Your task to perform on an android device: Empty the shopping cart on costco.com. Add razer huntsman to the cart on costco.com, then select checkout. Image 0: 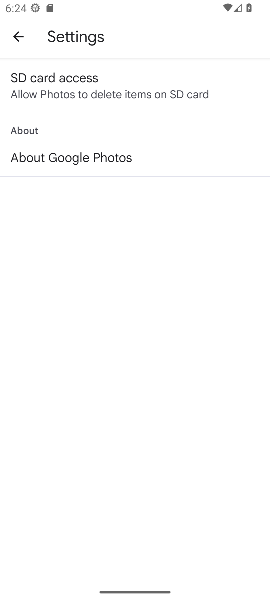
Step 0: press home button
Your task to perform on an android device: Empty the shopping cart on costco.com. Add razer huntsman to the cart on costco.com, then select checkout. Image 1: 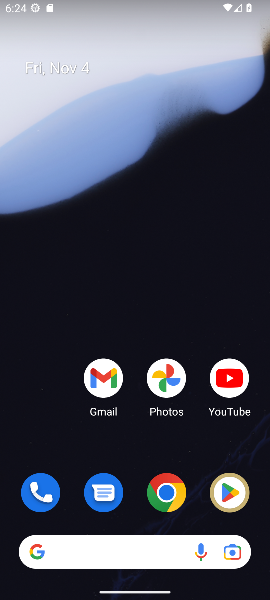
Step 1: drag from (187, 119) to (196, 85)
Your task to perform on an android device: Empty the shopping cart on costco.com. Add razer huntsman to the cart on costco.com, then select checkout. Image 2: 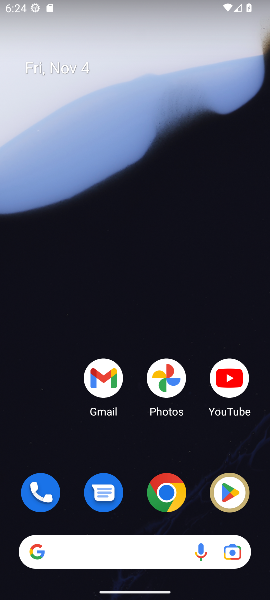
Step 2: drag from (135, 454) to (165, 72)
Your task to perform on an android device: Empty the shopping cart on costco.com. Add razer huntsman to the cart on costco.com, then select checkout. Image 3: 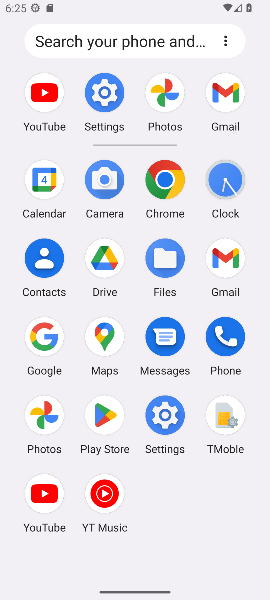
Step 3: click (168, 180)
Your task to perform on an android device: Empty the shopping cart on costco.com. Add razer huntsman to the cart on costco.com, then select checkout. Image 4: 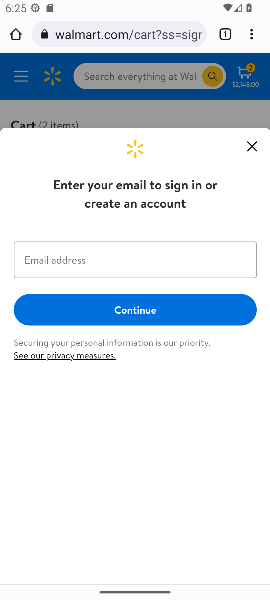
Step 4: click (117, 31)
Your task to perform on an android device: Empty the shopping cart on costco.com. Add razer huntsman to the cart on costco.com, then select checkout. Image 5: 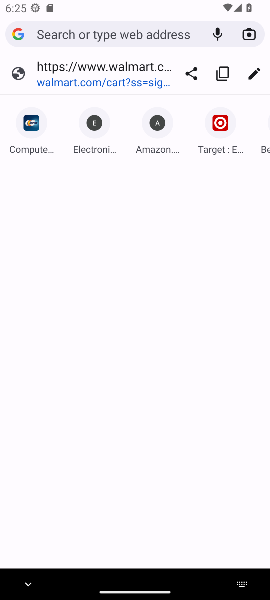
Step 5: type "costco.com"
Your task to perform on an android device: Empty the shopping cart on costco.com. Add razer huntsman to the cart on costco.com, then select checkout. Image 6: 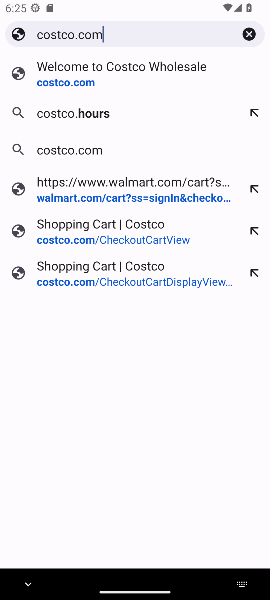
Step 6: press enter
Your task to perform on an android device: Empty the shopping cart on costco.com. Add razer huntsman to the cart on costco.com, then select checkout. Image 7: 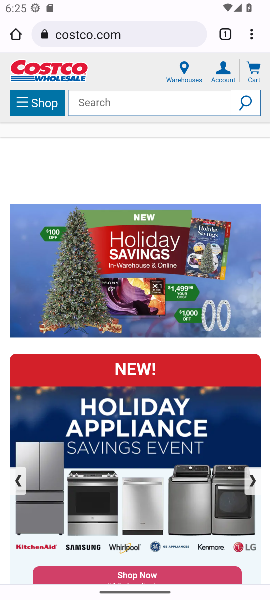
Step 7: click (249, 68)
Your task to perform on an android device: Empty the shopping cart on costco.com. Add razer huntsman to the cart on costco.com, then select checkout. Image 8: 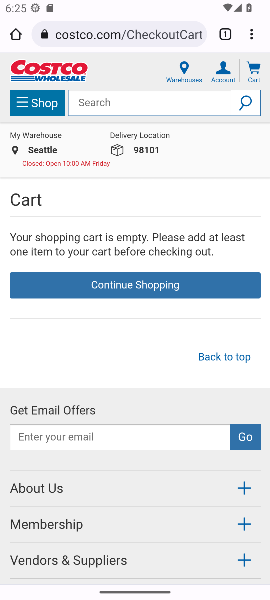
Step 8: click (154, 105)
Your task to perform on an android device: Empty the shopping cart on costco.com. Add razer huntsman to the cart on costco.com, then select checkout. Image 9: 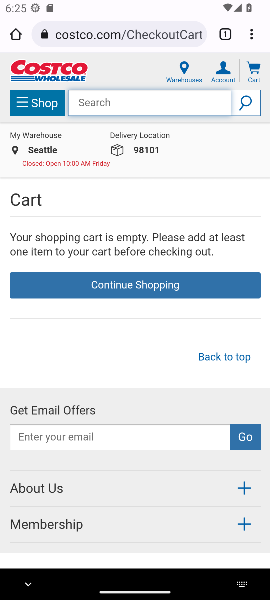
Step 9: type "razer huntsman"
Your task to perform on an android device: Empty the shopping cart on costco.com. Add razer huntsman to the cart on costco.com, then select checkout. Image 10: 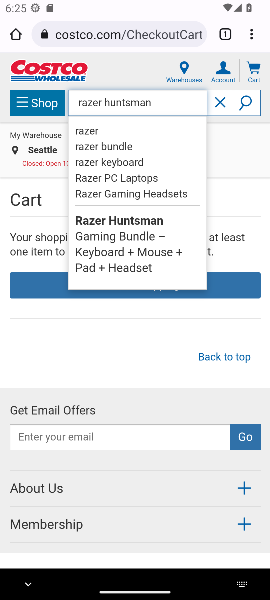
Step 10: press enter
Your task to perform on an android device: Empty the shopping cart on costco.com. Add razer huntsman to the cart on costco.com, then select checkout. Image 11: 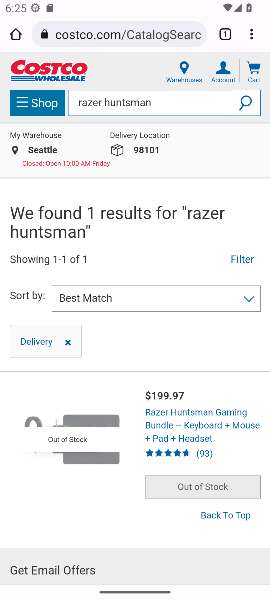
Step 11: drag from (121, 478) to (166, 276)
Your task to perform on an android device: Empty the shopping cart on costco.com. Add razer huntsman to the cart on costco.com, then select checkout. Image 12: 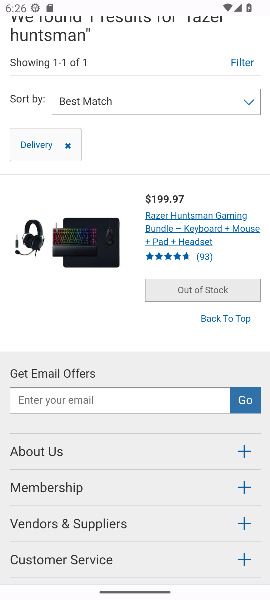
Step 12: drag from (169, 145) to (186, 477)
Your task to perform on an android device: Empty the shopping cart on costco.com. Add razer huntsman to the cart on costco.com, then select checkout. Image 13: 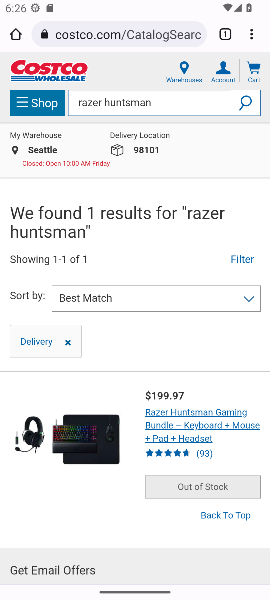
Step 13: click (192, 423)
Your task to perform on an android device: Empty the shopping cart on costco.com. Add razer huntsman to the cart on costco.com, then select checkout. Image 14: 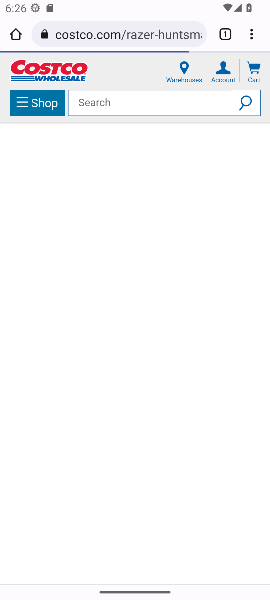
Step 14: task complete